Your task to perform on an android device: Turn on the flashlight Image 0: 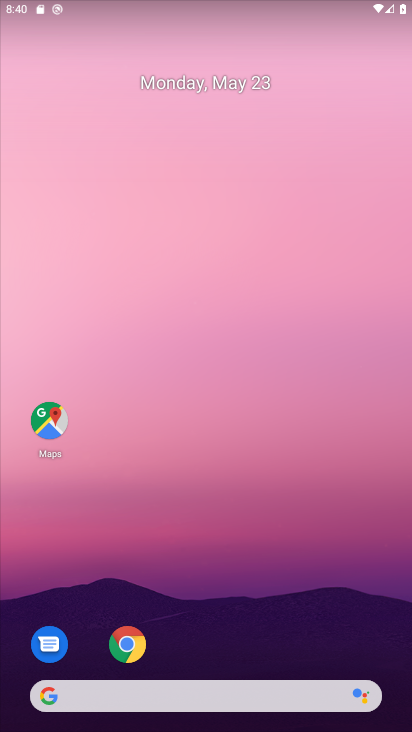
Step 0: drag from (312, 622) to (367, 73)
Your task to perform on an android device: Turn on the flashlight Image 1: 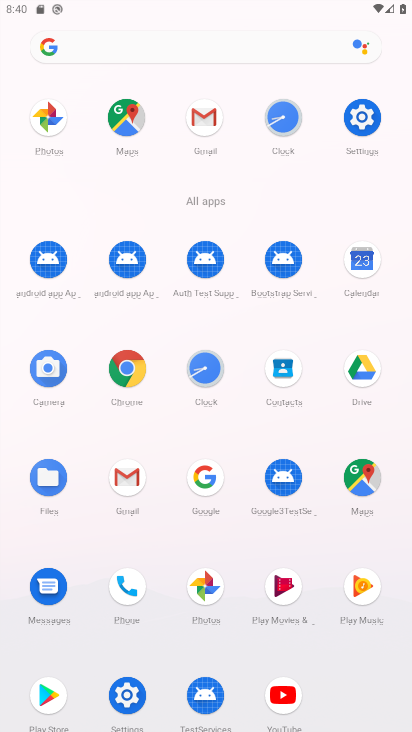
Step 1: click (371, 109)
Your task to perform on an android device: Turn on the flashlight Image 2: 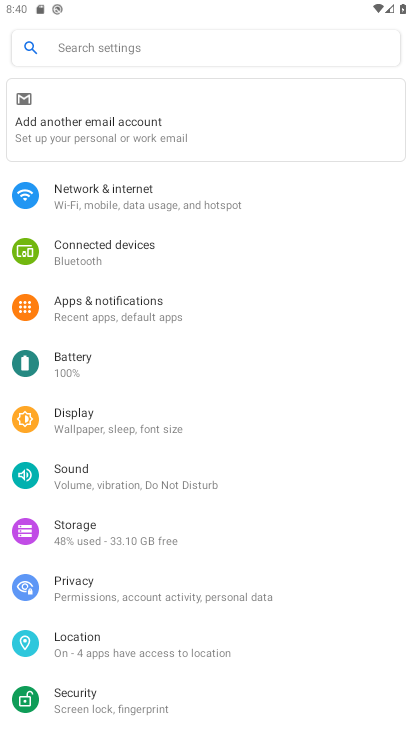
Step 2: click (170, 42)
Your task to perform on an android device: Turn on the flashlight Image 3: 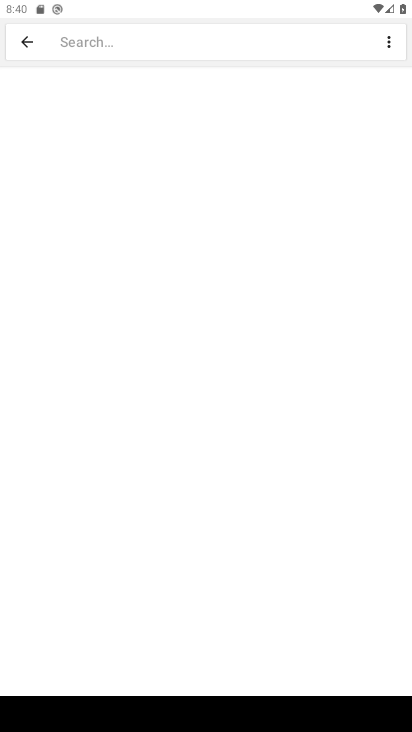
Step 3: type "flashlight"
Your task to perform on an android device: Turn on the flashlight Image 4: 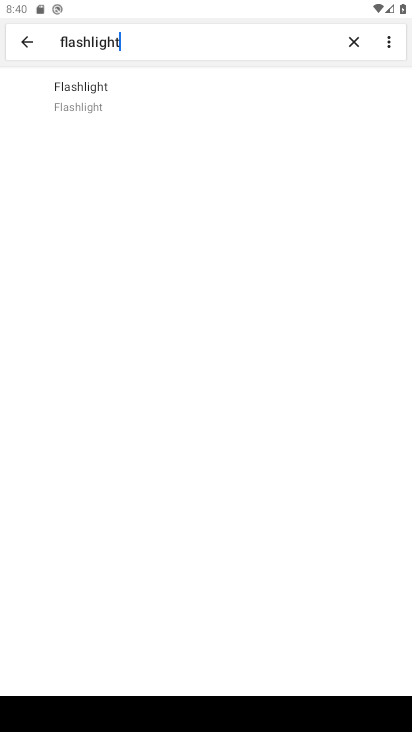
Step 4: click (177, 102)
Your task to perform on an android device: Turn on the flashlight Image 5: 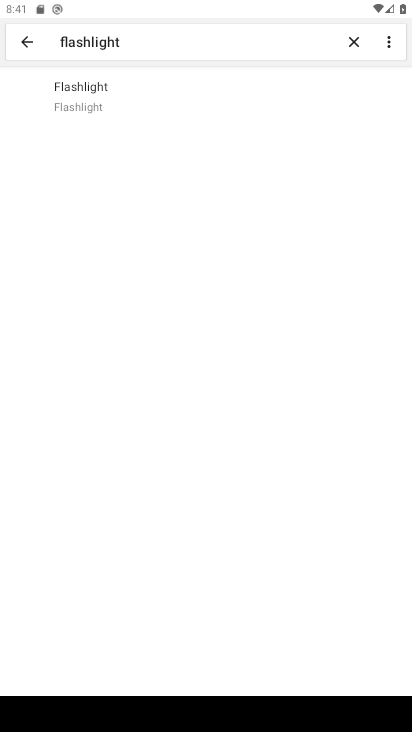
Step 5: task complete